Your task to perform on an android device: Go to accessibility settings Image 0: 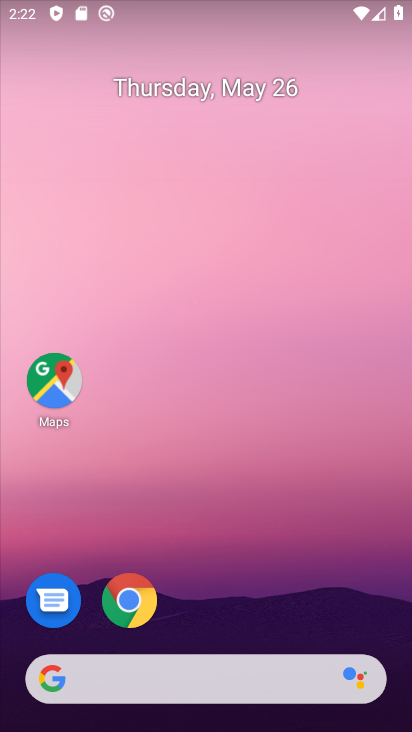
Step 0: drag from (190, 644) to (287, 167)
Your task to perform on an android device: Go to accessibility settings Image 1: 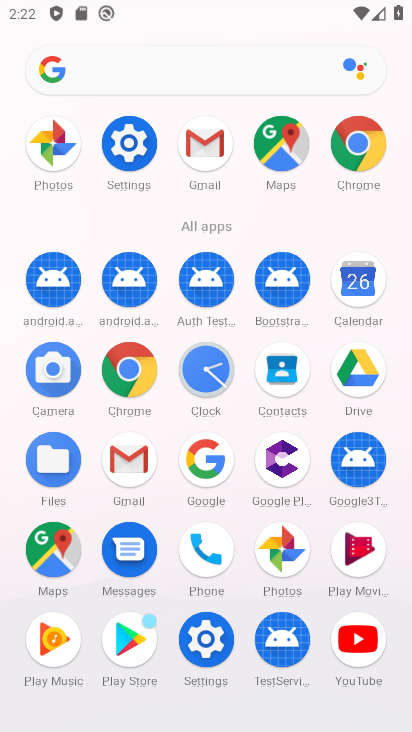
Step 1: click (215, 663)
Your task to perform on an android device: Go to accessibility settings Image 2: 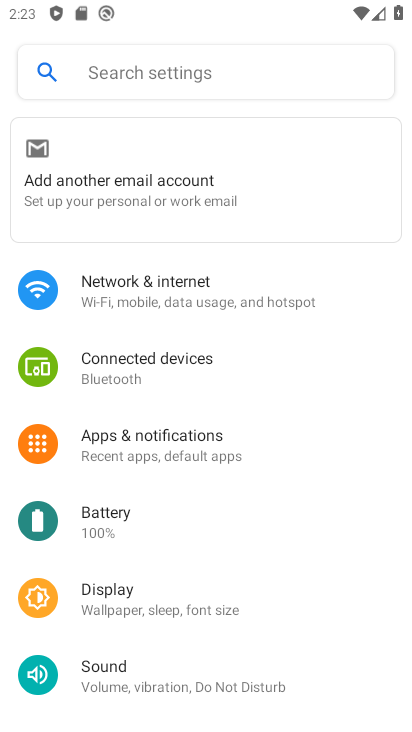
Step 2: drag from (186, 648) to (315, 33)
Your task to perform on an android device: Go to accessibility settings Image 3: 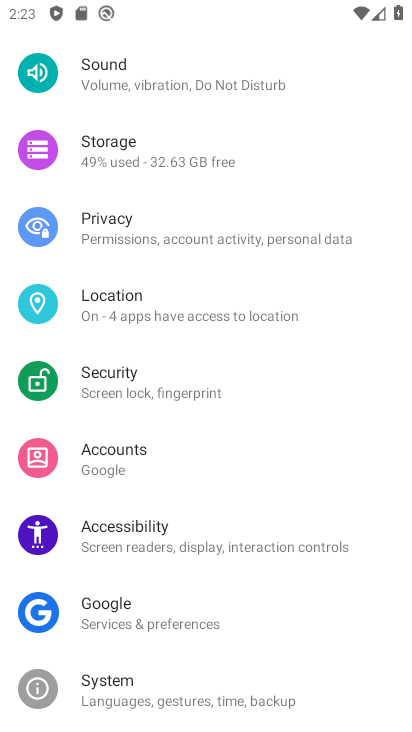
Step 3: drag from (151, 612) to (285, 117)
Your task to perform on an android device: Go to accessibility settings Image 4: 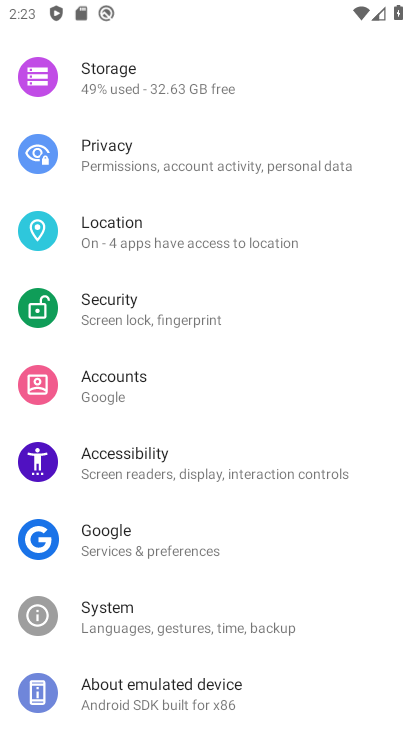
Step 4: click (169, 459)
Your task to perform on an android device: Go to accessibility settings Image 5: 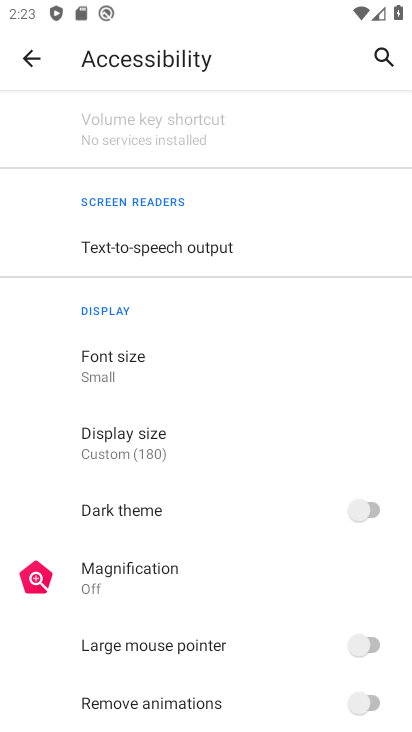
Step 5: task complete